Your task to perform on an android device: Go to internet settings Image 0: 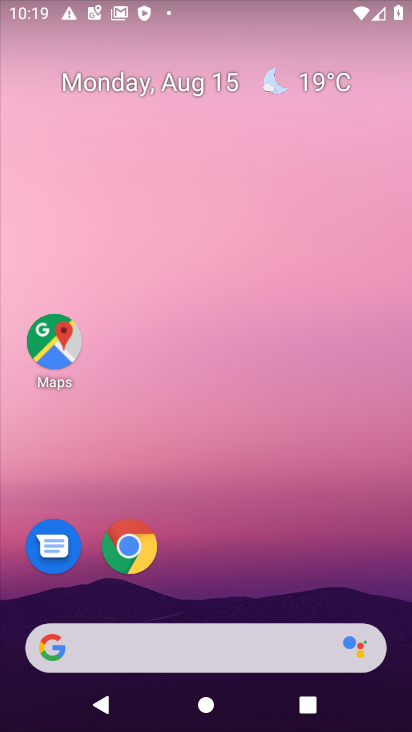
Step 0: drag from (242, 602) to (270, 37)
Your task to perform on an android device: Go to internet settings Image 1: 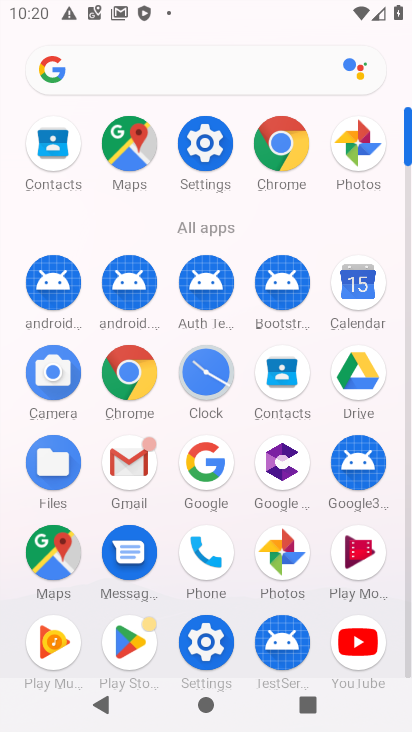
Step 1: click (206, 134)
Your task to perform on an android device: Go to internet settings Image 2: 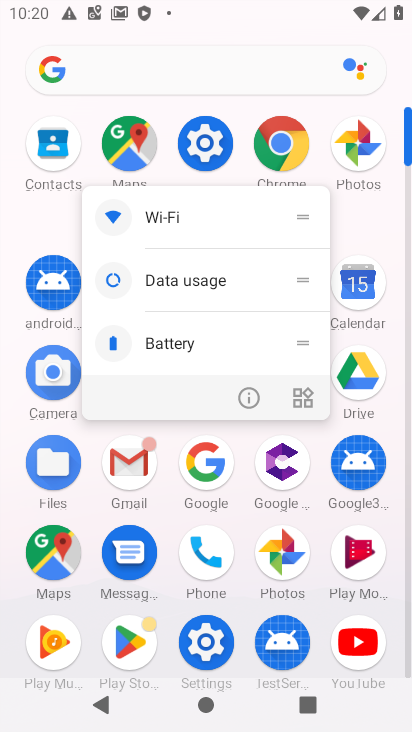
Step 2: click (200, 141)
Your task to perform on an android device: Go to internet settings Image 3: 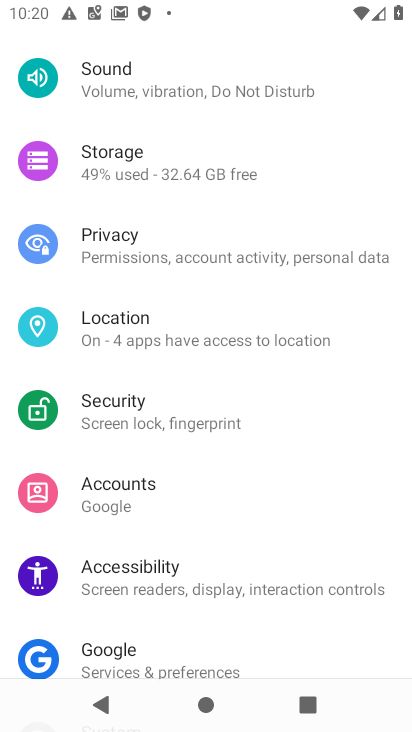
Step 3: drag from (226, 170) to (220, 679)
Your task to perform on an android device: Go to internet settings Image 4: 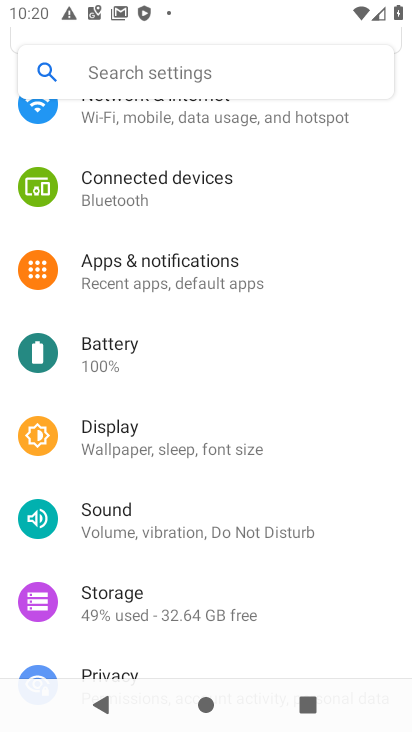
Step 4: drag from (141, 165) to (139, 582)
Your task to perform on an android device: Go to internet settings Image 5: 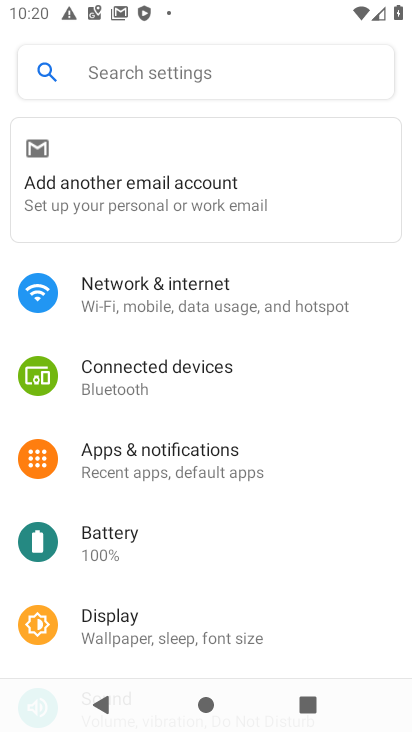
Step 5: click (138, 292)
Your task to perform on an android device: Go to internet settings Image 6: 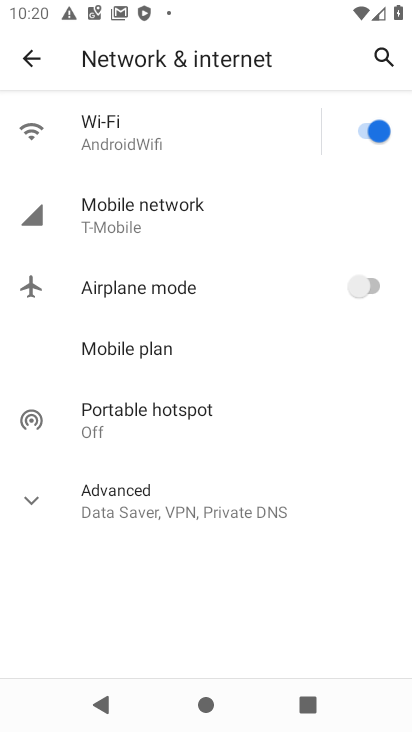
Step 6: task complete